Your task to perform on an android device: turn on priority inbox in the gmail app Image 0: 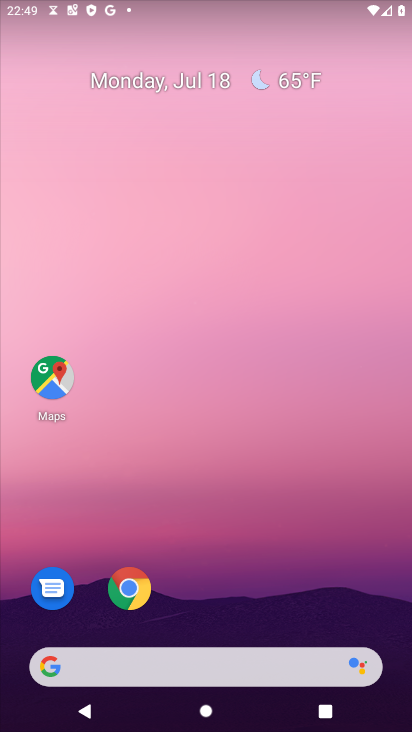
Step 0: drag from (177, 669) to (254, 153)
Your task to perform on an android device: turn on priority inbox in the gmail app Image 1: 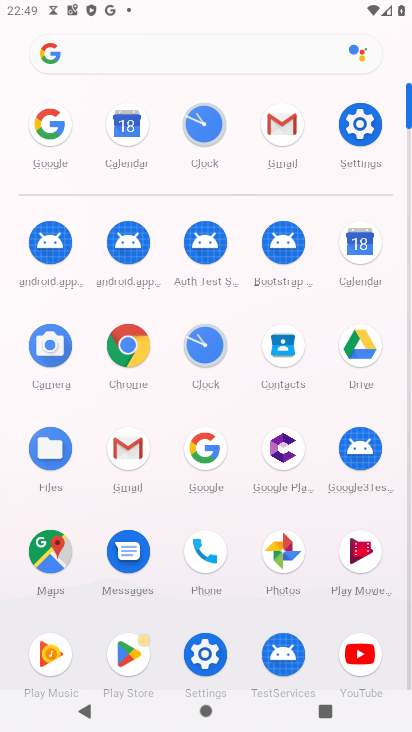
Step 1: click (283, 123)
Your task to perform on an android device: turn on priority inbox in the gmail app Image 2: 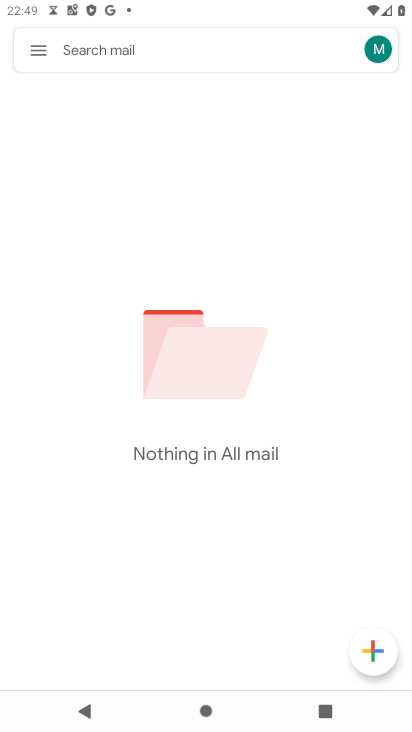
Step 2: click (38, 51)
Your task to perform on an android device: turn on priority inbox in the gmail app Image 3: 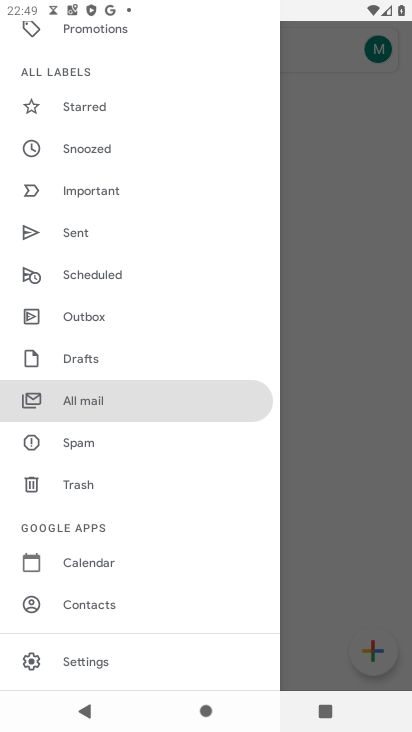
Step 3: drag from (114, 547) to (152, 427)
Your task to perform on an android device: turn on priority inbox in the gmail app Image 4: 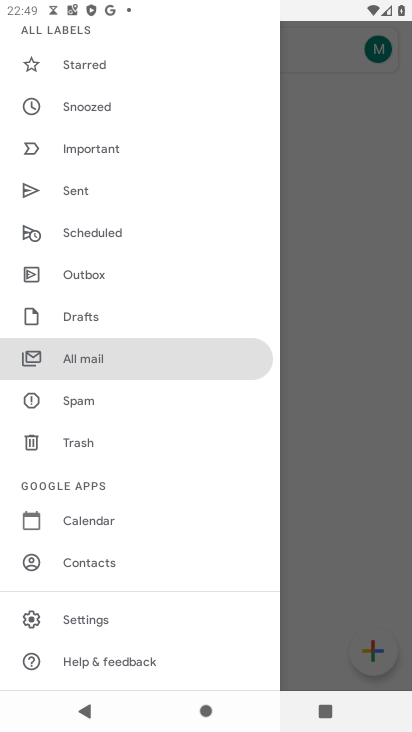
Step 4: click (83, 618)
Your task to perform on an android device: turn on priority inbox in the gmail app Image 5: 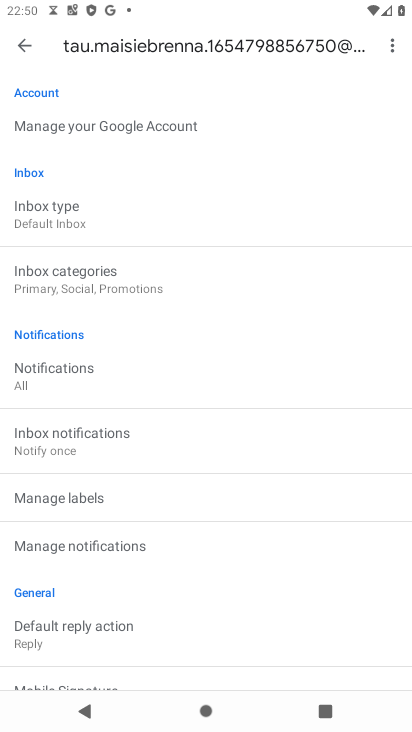
Step 5: drag from (128, 562) to (192, 337)
Your task to perform on an android device: turn on priority inbox in the gmail app Image 6: 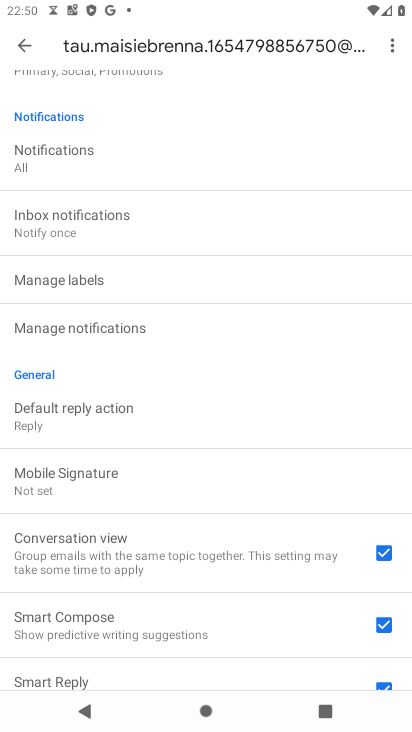
Step 6: drag from (162, 228) to (207, 424)
Your task to perform on an android device: turn on priority inbox in the gmail app Image 7: 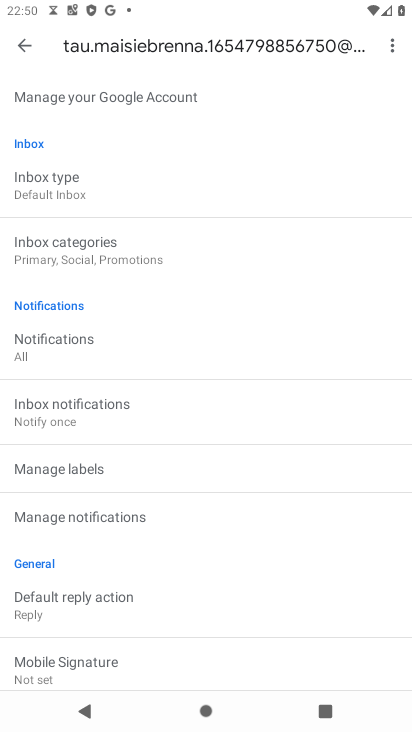
Step 7: click (84, 180)
Your task to perform on an android device: turn on priority inbox in the gmail app Image 8: 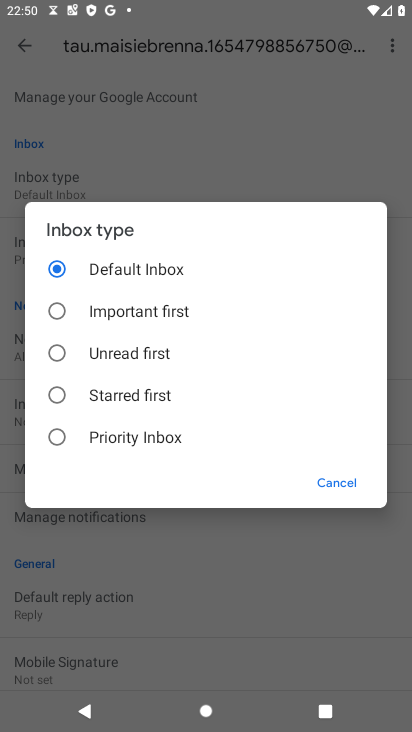
Step 8: click (58, 439)
Your task to perform on an android device: turn on priority inbox in the gmail app Image 9: 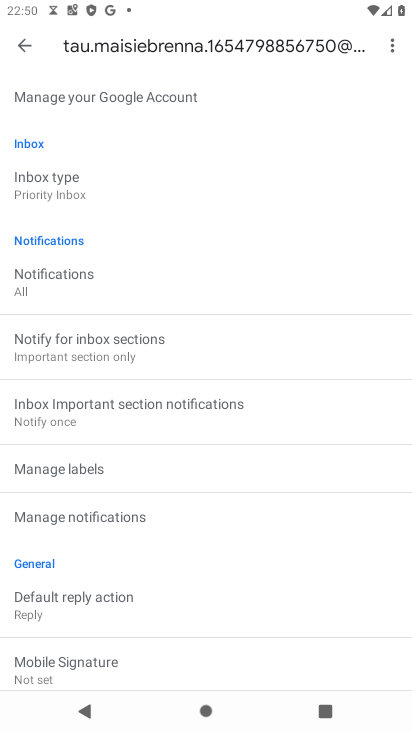
Step 9: task complete